Your task to perform on an android device: Search for logitech g502 on ebay, select the first entry, add it to the cart, then select checkout. Image 0: 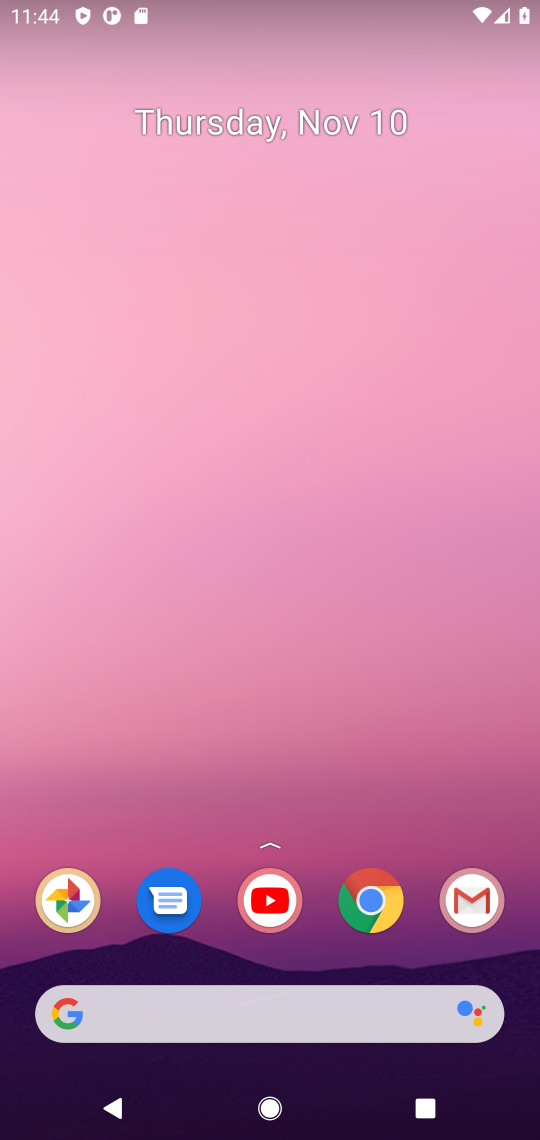
Step 0: click (368, 902)
Your task to perform on an android device: Search for logitech g502 on ebay, select the first entry, add it to the cart, then select checkout. Image 1: 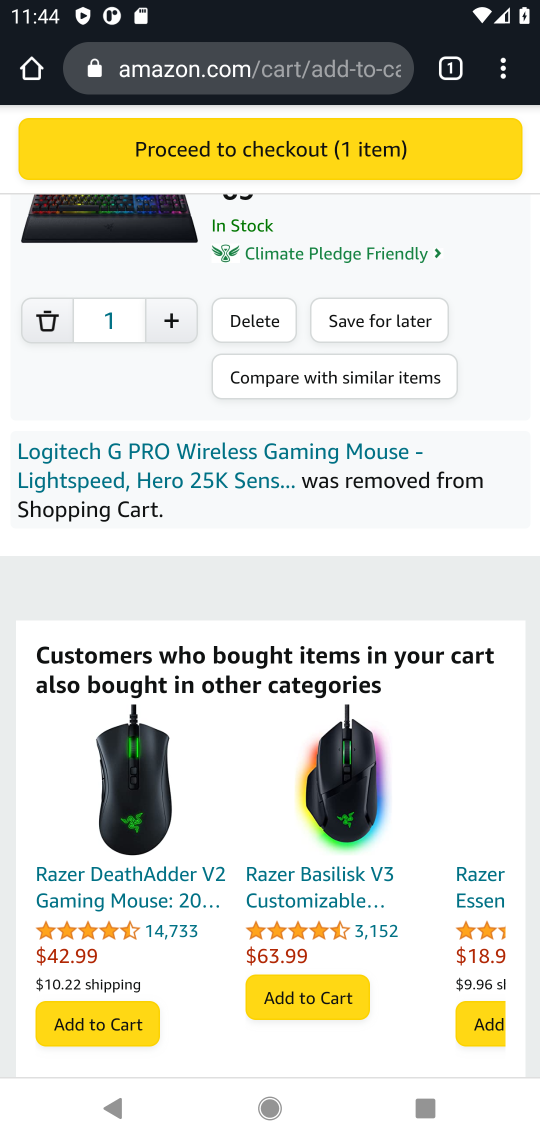
Step 1: click (281, 73)
Your task to perform on an android device: Search for logitech g502 on ebay, select the first entry, add it to the cart, then select checkout. Image 2: 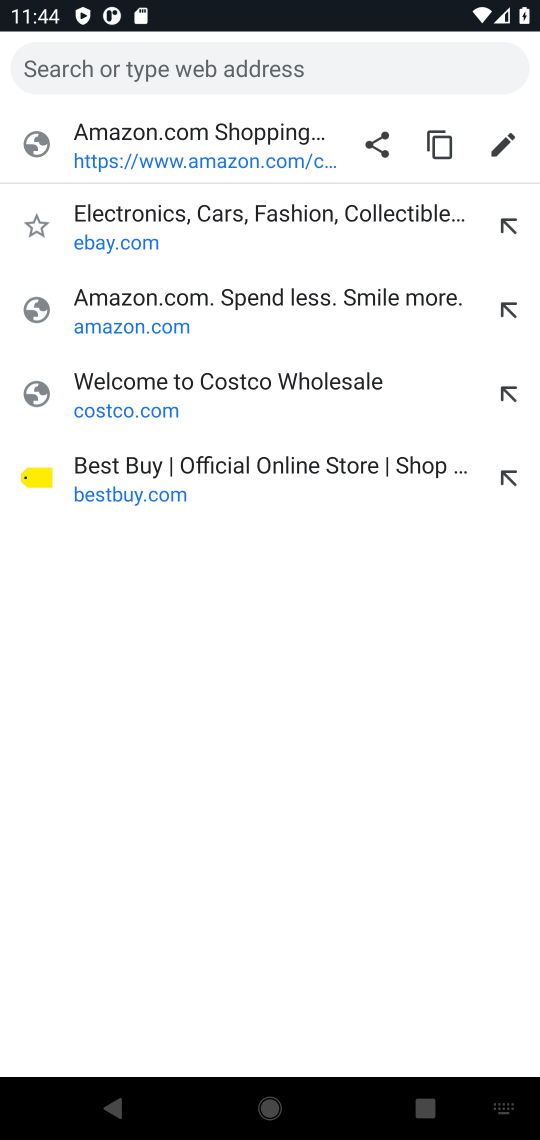
Step 2: click (127, 232)
Your task to perform on an android device: Search for logitech g502 on ebay, select the first entry, add it to the cart, then select checkout. Image 3: 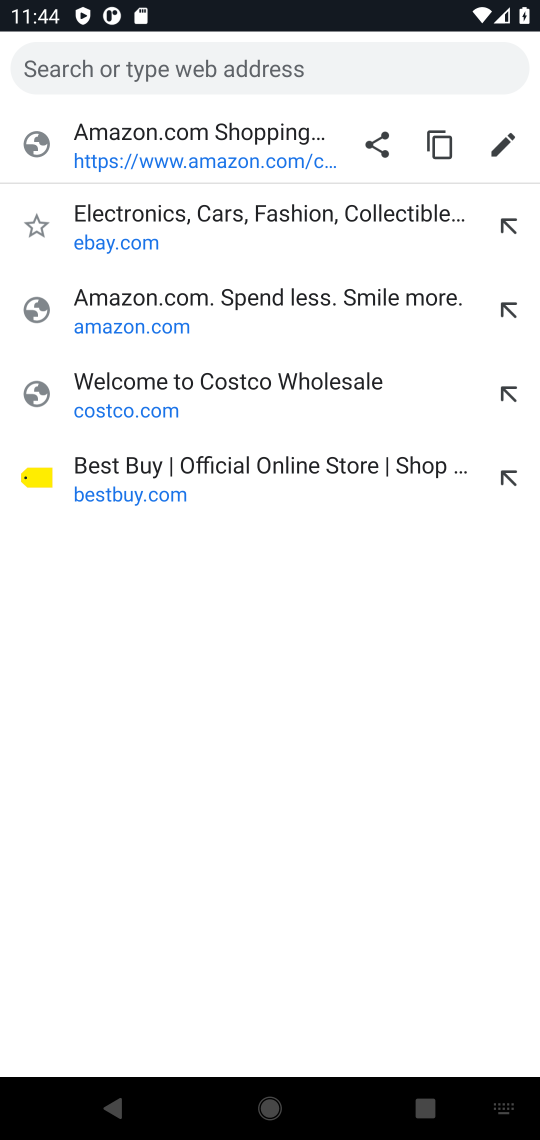
Step 3: click (128, 241)
Your task to perform on an android device: Search for logitech g502 on ebay, select the first entry, add it to the cart, then select checkout. Image 4: 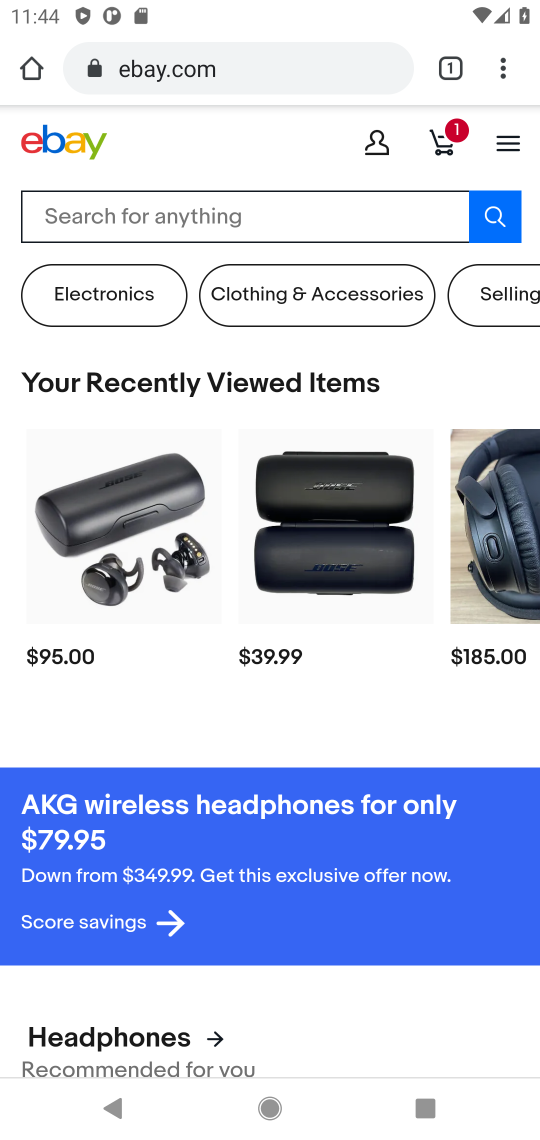
Step 4: click (148, 222)
Your task to perform on an android device: Search for logitech g502 on ebay, select the first entry, add it to the cart, then select checkout. Image 5: 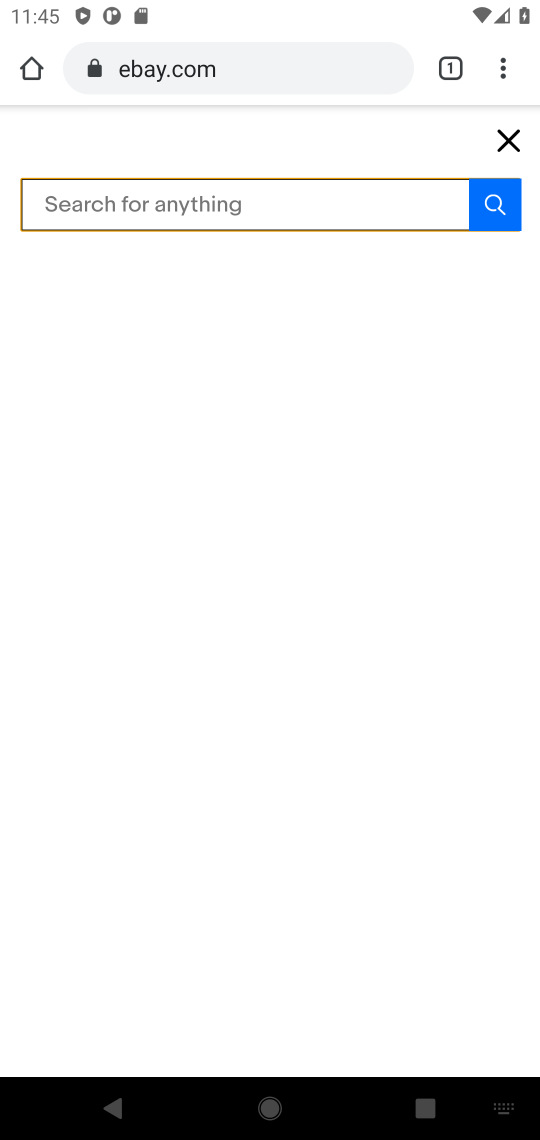
Step 5: type "logitech g502 "
Your task to perform on an android device: Search for logitech g502 on ebay, select the first entry, add it to the cart, then select checkout. Image 6: 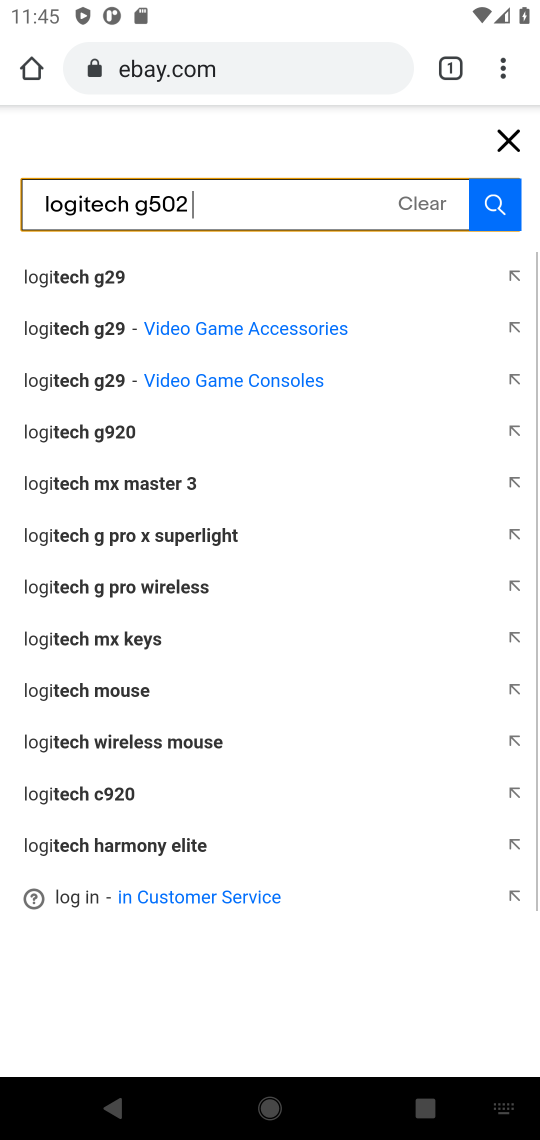
Step 6: press enter
Your task to perform on an android device: Search for logitech g502 on ebay, select the first entry, add it to the cart, then select checkout. Image 7: 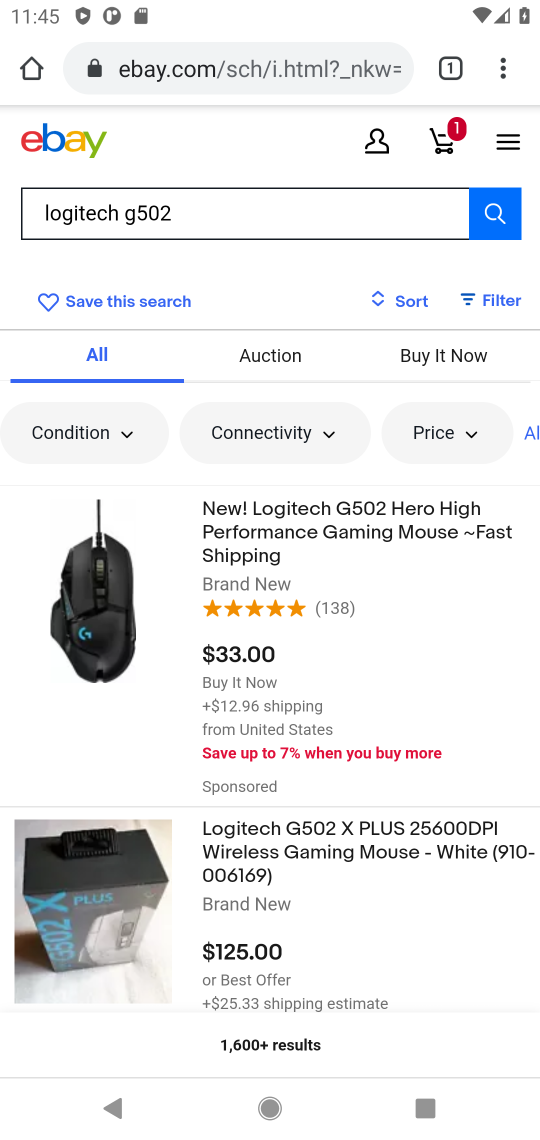
Step 7: click (375, 538)
Your task to perform on an android device: Search for logitech g502 on ebay, select the first entry, add it to the cart, then select checkout. Image 8: 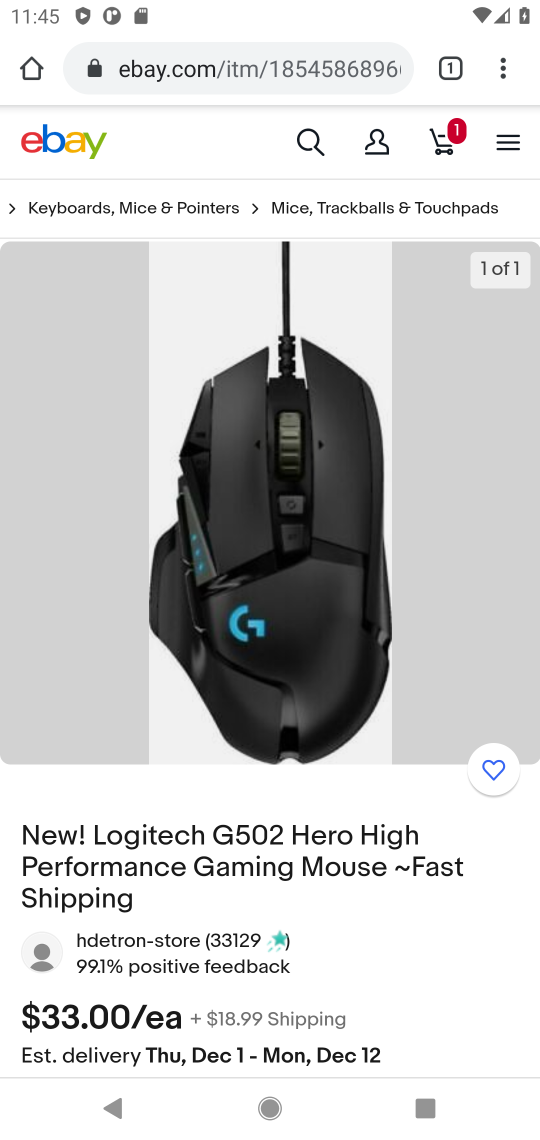
Step 8: drag from (355, 1004) to (500, 354)
Your task to perform on an android device: Search for logitech g502 on ebay, select the first entry, add it to the cart, then select checkout. Image 9: 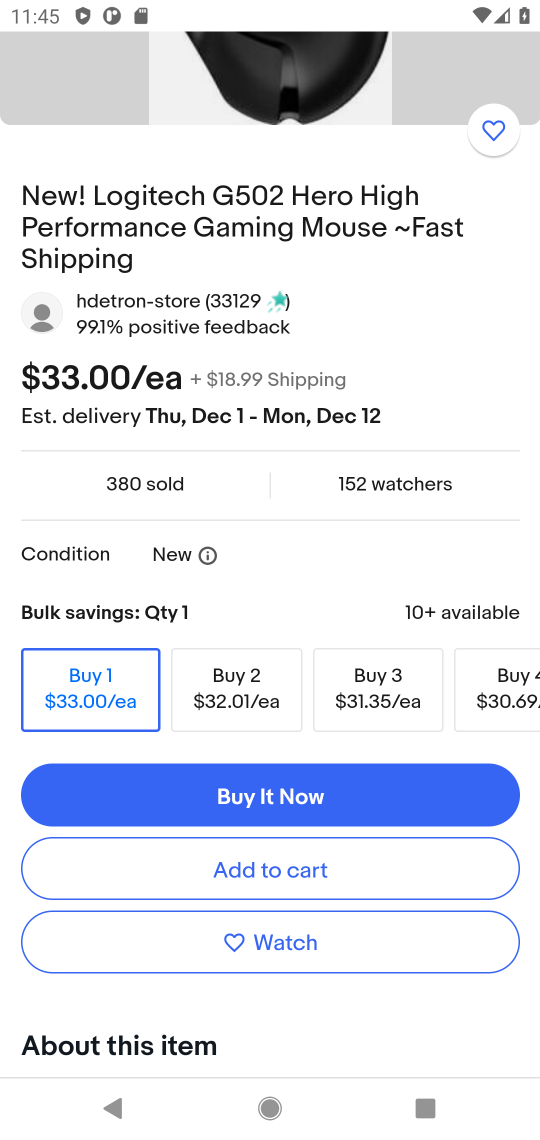
Step 9: click (265, 867)
Your task to perform on an android device: Search for logitech g502 on ebay, select the first entry, add it to the cart, then select checkout. Image 10: 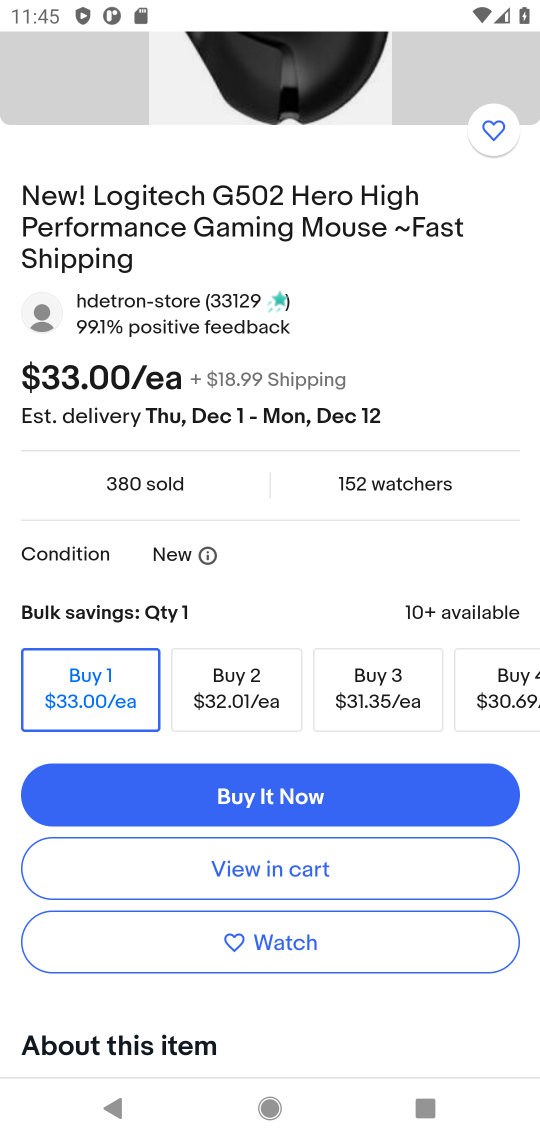
Step 10: click (270, 859)
Your task to perform on an android device: Search for logitech g502 on ebay, select the first entry, add it to the cart, then select checkout. Image 11: 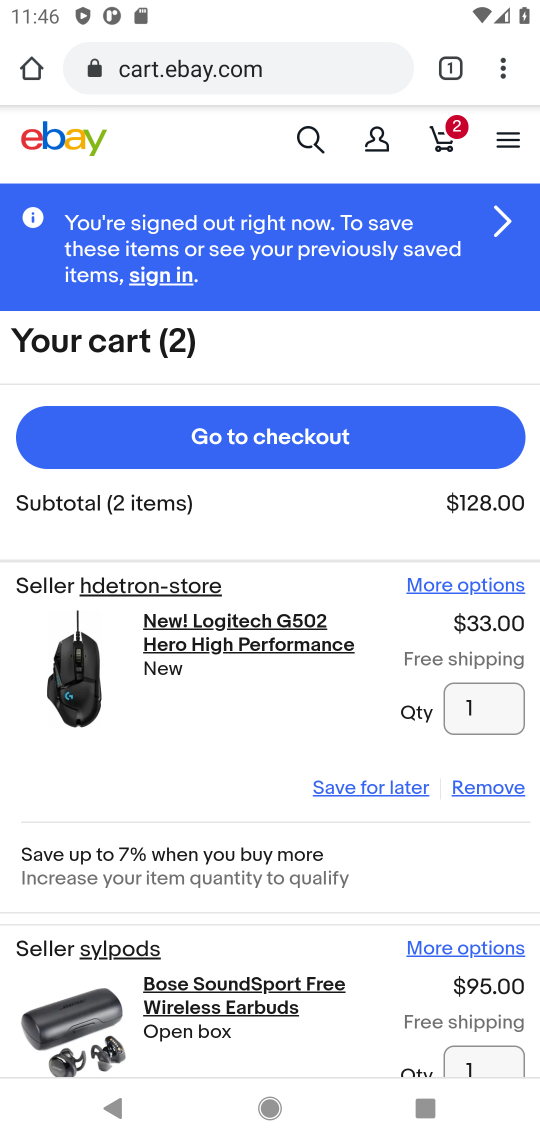
Step 11: drag from (248, 1007) to (382, 734)
Your task to perform on an android device: Search for logitech g502 on ebay, select the first entry, add it to the cart, then select checkout. Image 12: 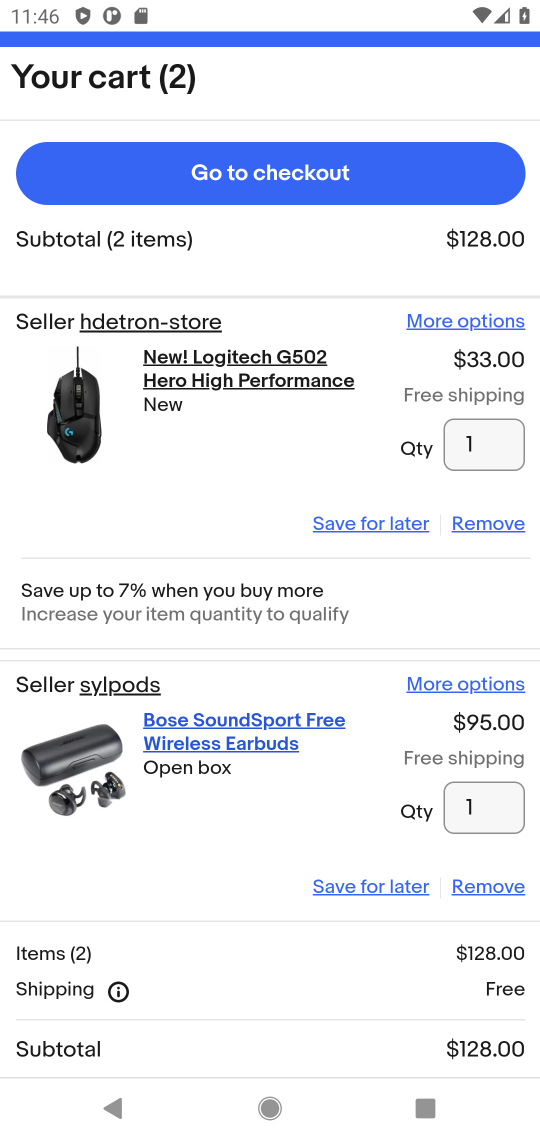
Step 12: click (500, 887)
Your task to perform on an android device: Search for logitech g502 on ebay, select the first entry, add it to the cart, then select checkout. Image 13: 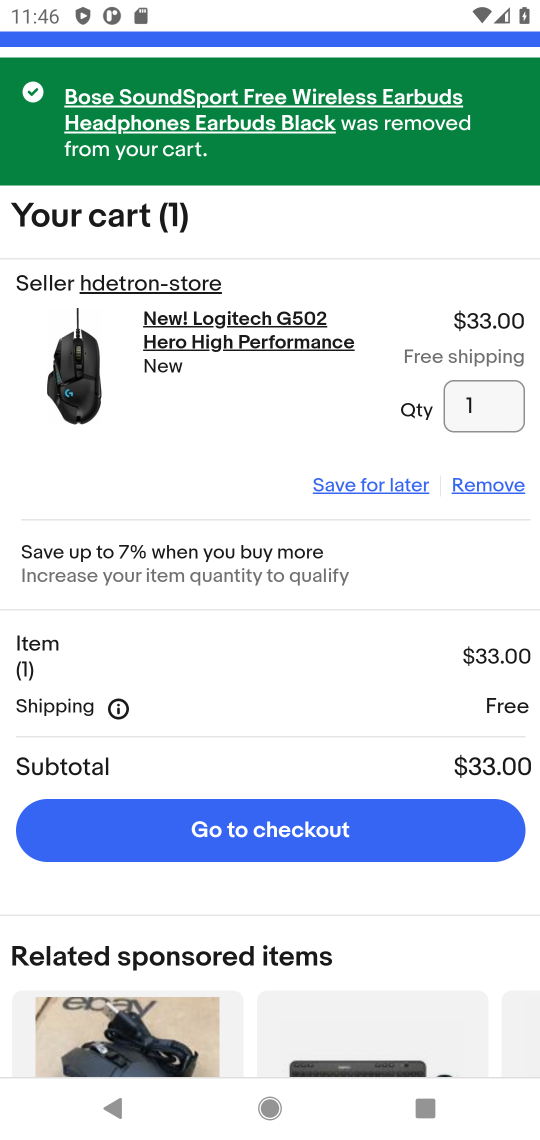
Step 13: click (302, 826)
Your task to perform on an android device: Search for logitech g502 on ebay, select the first entry, add it to the cart, then select checkout. Image 14: 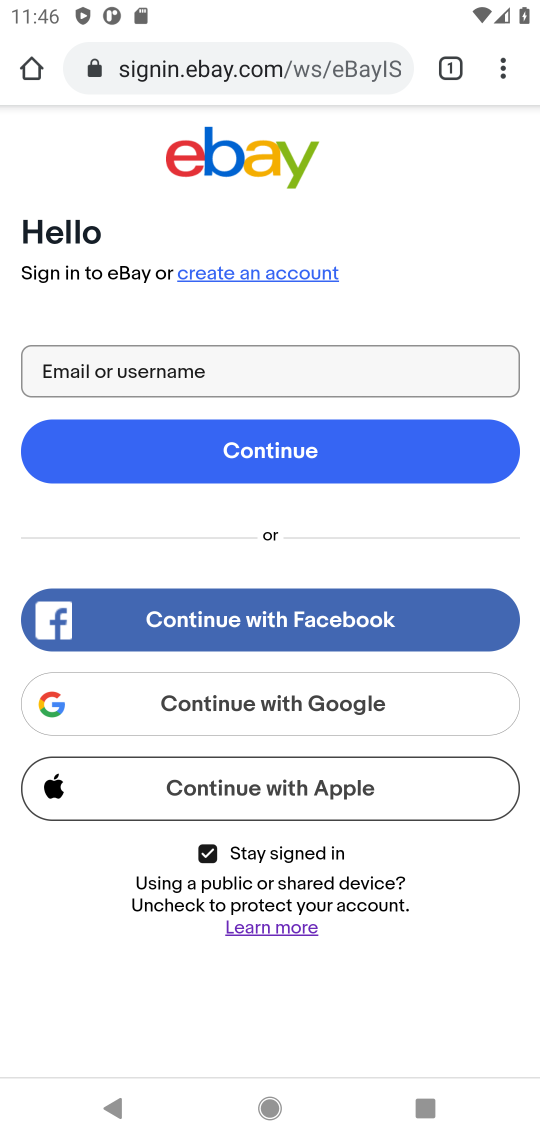
Step 14: task complete